Your task to perform on an android device: turn vacation reply on in the gmail app Image 0: 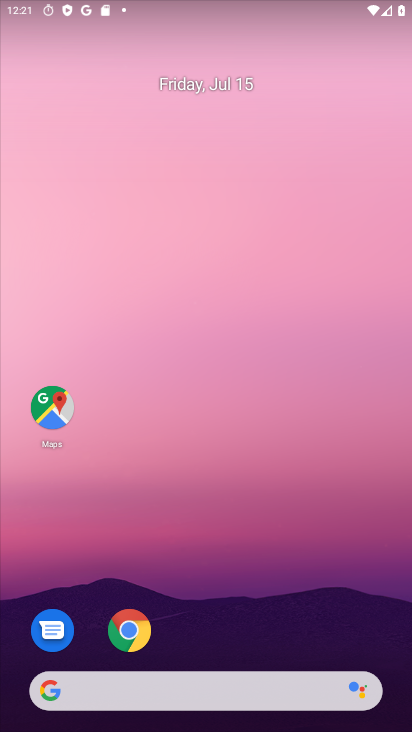
Step 0: drag from (216, 353) to (238, 16)
Your task to perform on an android device: turn vacation reply on in the gmail app Image 1: 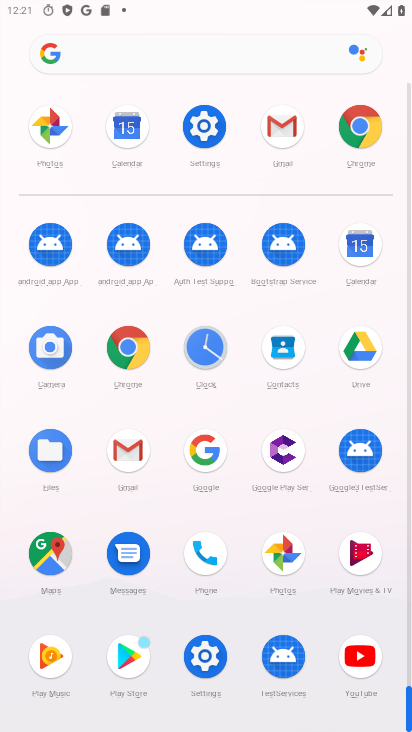
Step 1: click (127, 457)
Your task to perform on an android device: turn vacation reply on in the gmail app Image 2: 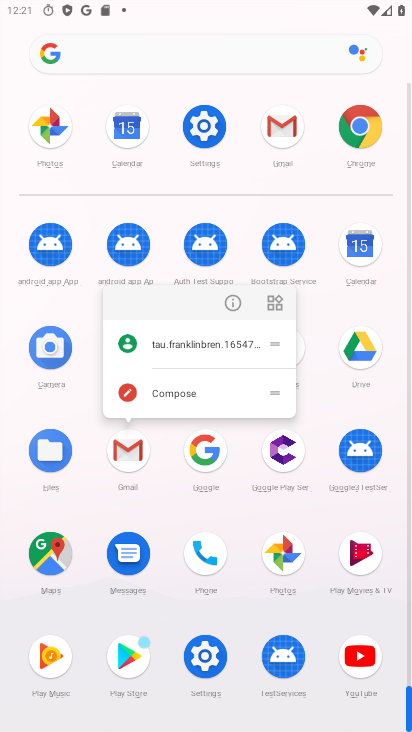
Step 2: click (222, 309)
Your task to perform on an android device: turn vacation reply on in the gmail app Image 3: 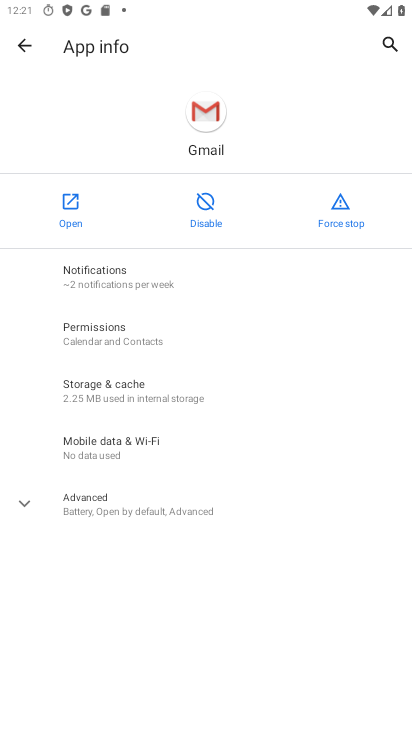
Step 3: click (80, 206)
Your task to perform on an android device: turn vacation reply on in the gmail app Image 4: 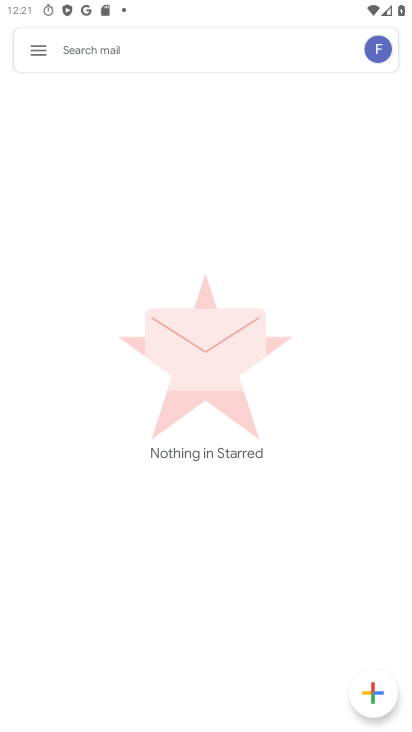
Step 4: click (19, 58)
Your task to perform on an android device: turn vacation reply on in the gmail app Image 5: 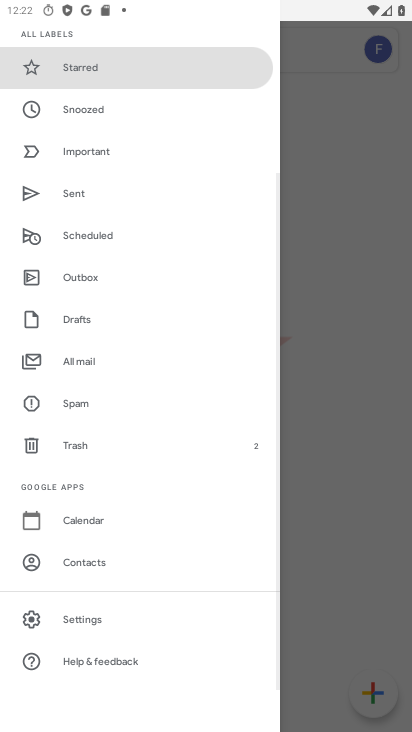
Step 5: click (88, 611)
Your task to perform on an android device: turn vacation reply on in the gmail app Image 6: 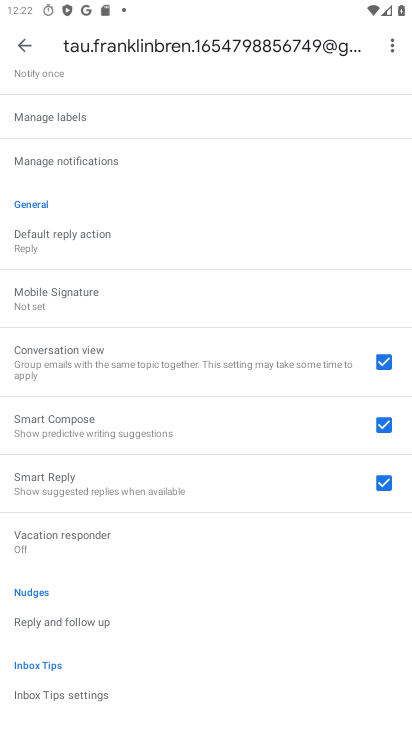
Step 6: click (84, 524)
Your task to perform on an android device: turn vacation reply on in the gmail app Image 7: 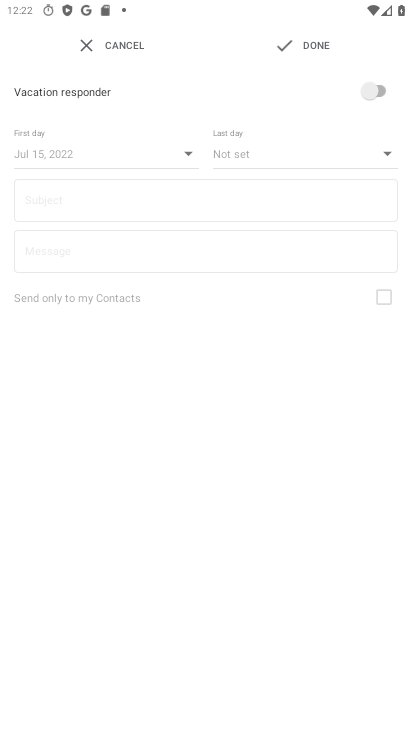
Step 7: click (375, 84)
Your task to perform on an android device: turn vacation reply on in the gmail app Image 8: 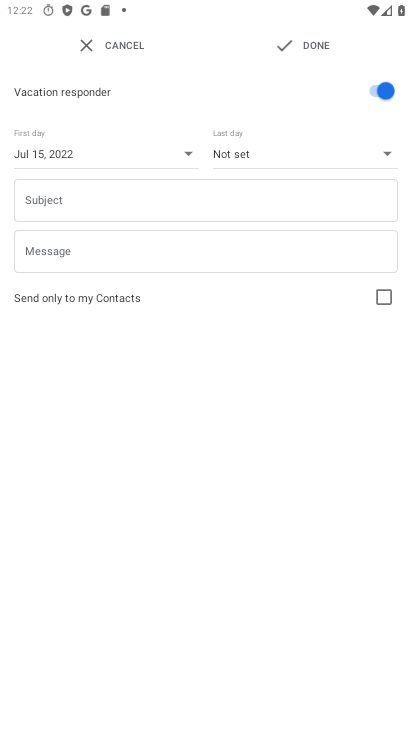
Step 8: click (298, 44)
Your task to perform on an android device: turn vacation reply on in the gmail app Image 9: 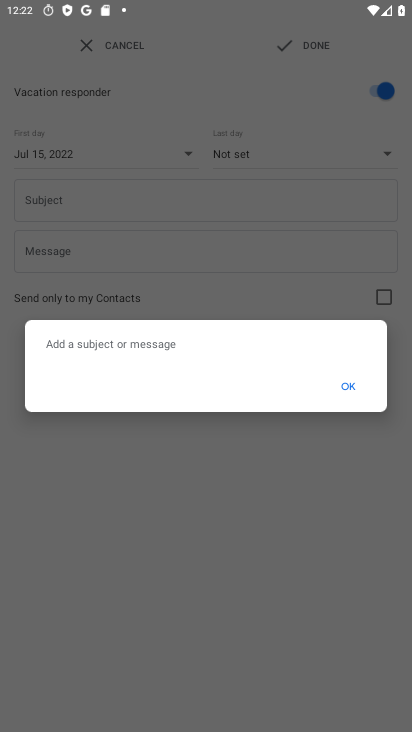
Step 9: task complete